Your task to perform on an android device: Open network settings Image 0: 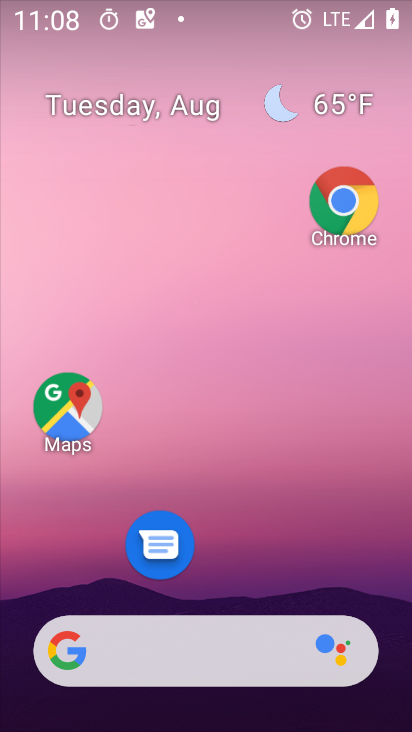
Step 0: drag from (280, 596) to (345, 186)
Your task to perform on an android device: Open network settings Image 1: 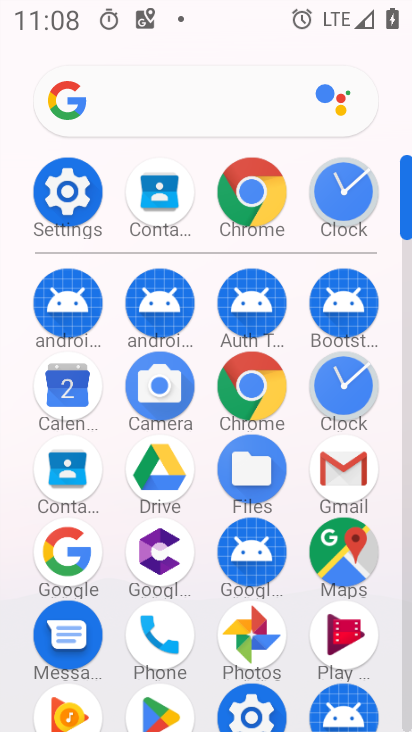
Step 1: click (91, 209)
Your task to perform on an android device: Open network settings Image 2: 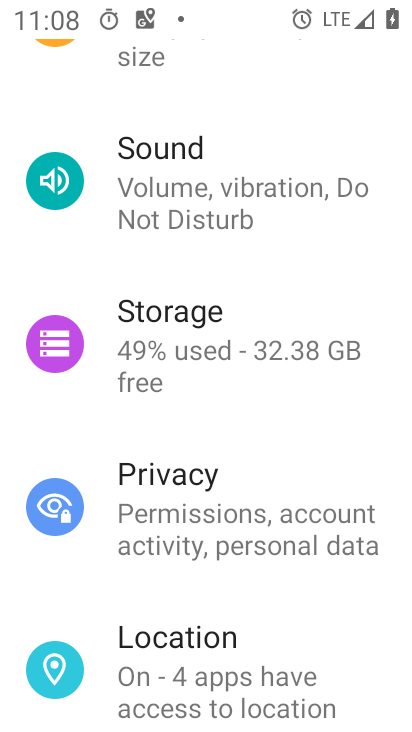
Step 2: drag from (279, 264) to (249, 538)
Your task to perform on an android device: Open network settings Image 3: 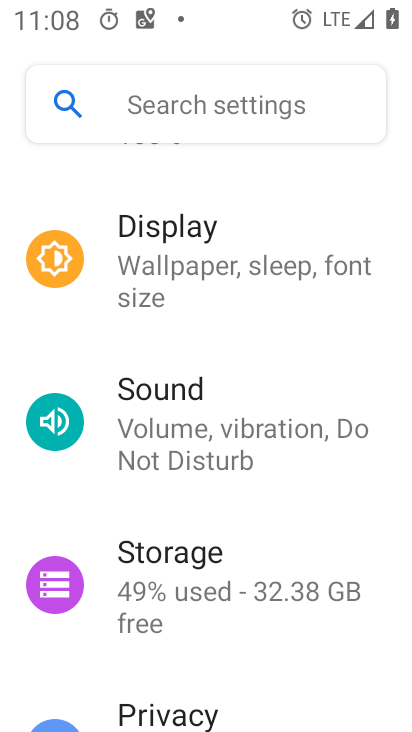
Step 3: drag from (246, 364) to (200, 638)
Your task to perform on an android device: Open network settings Image 4: 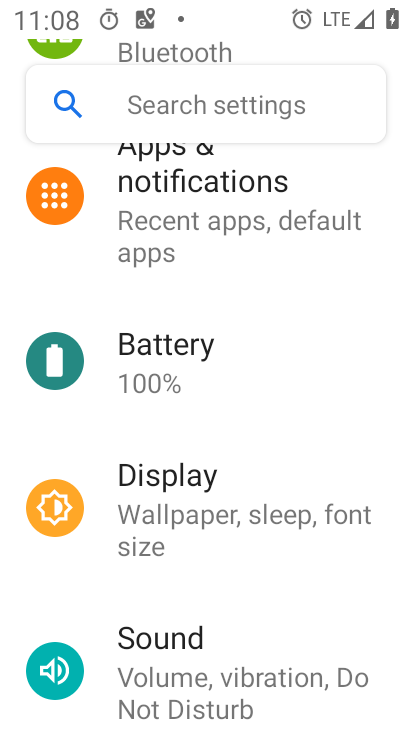
Step 4: drag from (222, 357) to (224, 638)
Your task to perform on an android device: Open network settings Image 5: 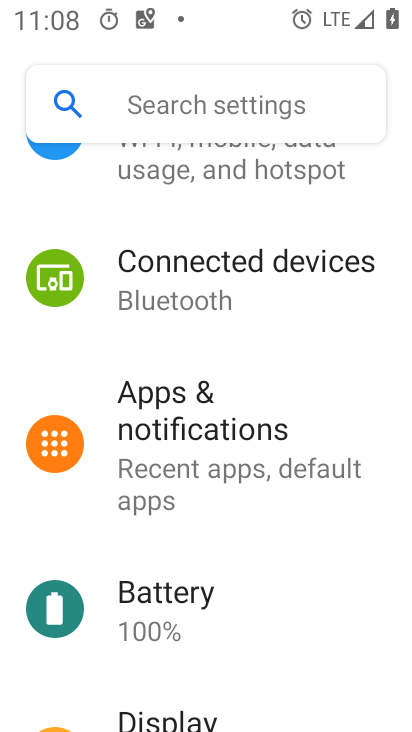
Step 5: drag from (251, 323) to (187, 626)
Your task to perform on an android device: Open network settings Image 6: 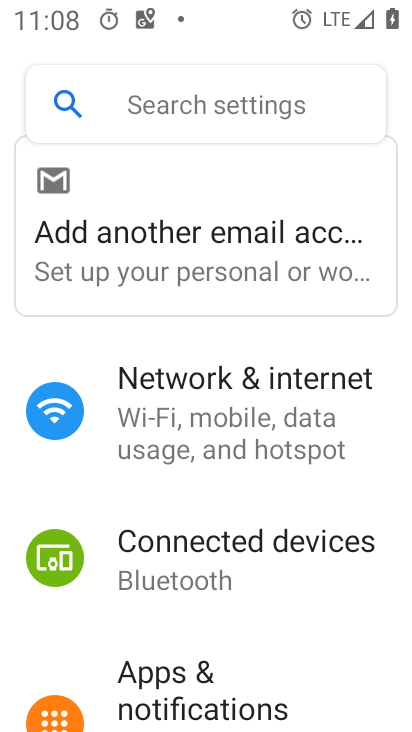
Step 6: click (216, 429)
Your task to perform on an android device: Open network settings Image 7: 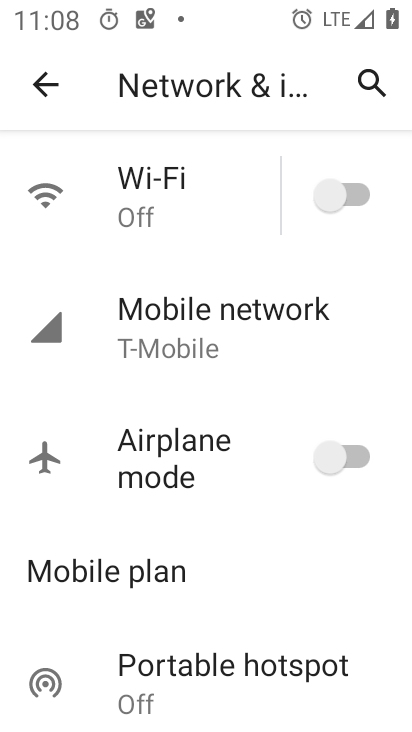
Step 7: click (233, 327)
Your task to perform on an android device: Open network settings Image 8: 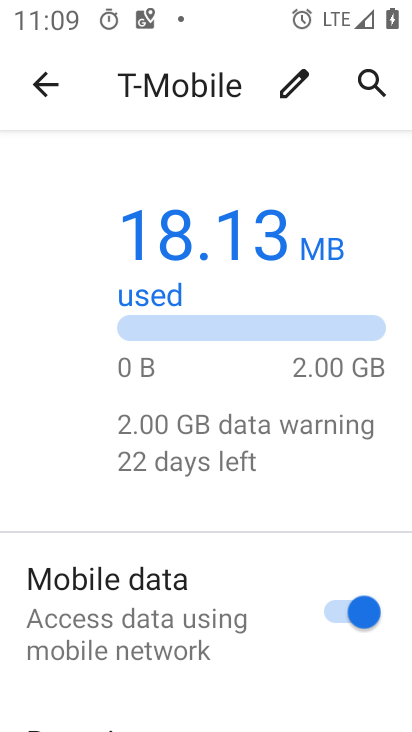
Step 8: task complete